Your task to perform on an android device: see creations saved in the google photos Image 0: 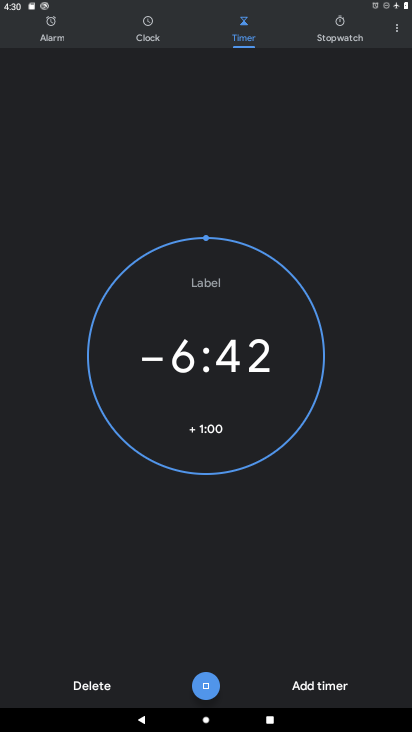
Step 0: press home button
Your task to perform on an android device: see creations saved in the google photos Image 1: 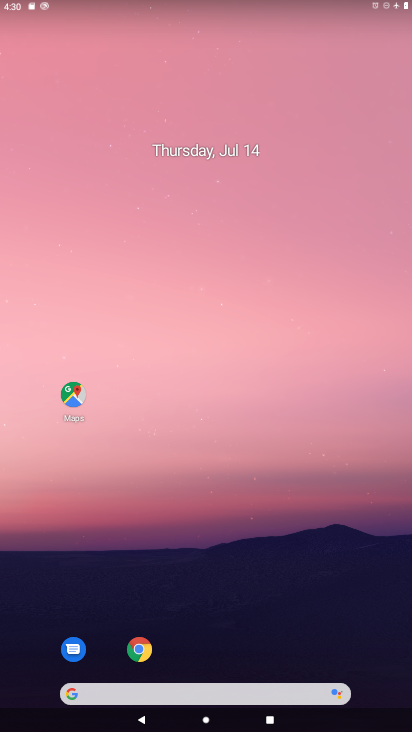
Step 1: drag from (190, 646) to (240, 20)
Your task to perform on an android device: see creations saved in the google photos Image 2: 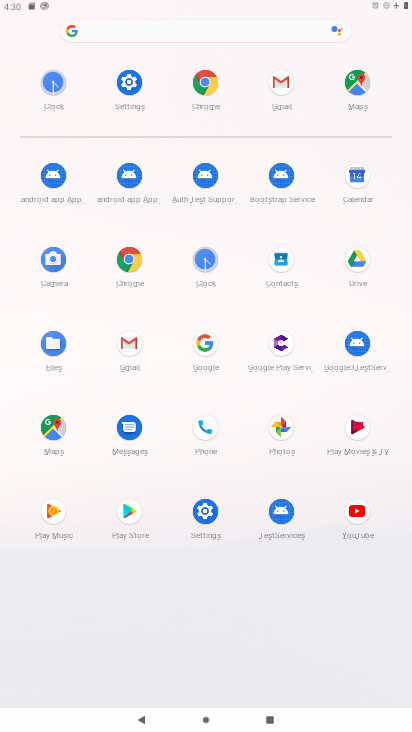
Step 2: click (278, 419)
Your task to perform on an android device: see creations saved in the google photos Image 3: 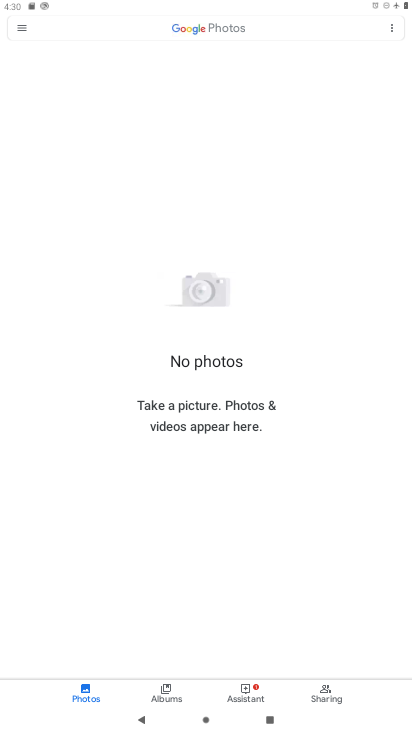
Step 3: click (147, 31)
Your task to perform on an android device: see creations saved in the google photos Image 4: 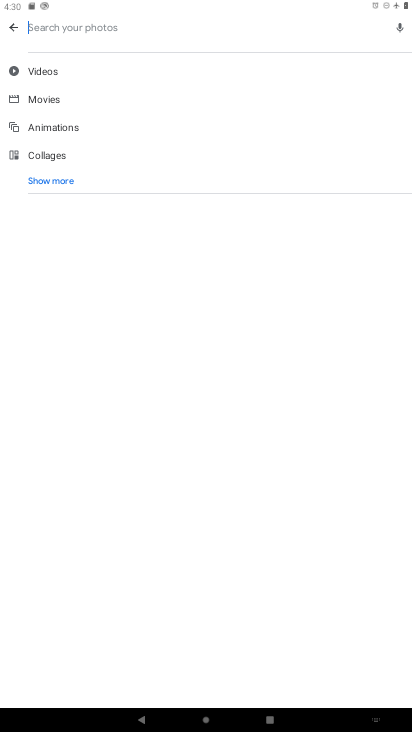
Step 4: type "creations"
Your task to perform on an android device: see creations saved in the google photos Image 5: 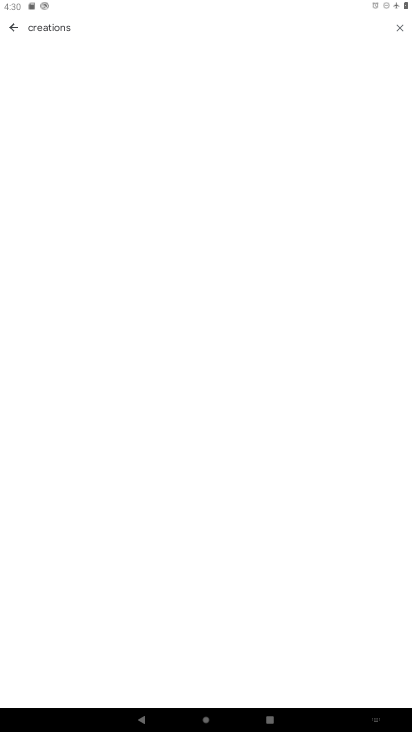
Step 5: task complete